Your task to perform on an android device: Look up the best rated 5.1 home theater speakers on Walmart. Image 0: 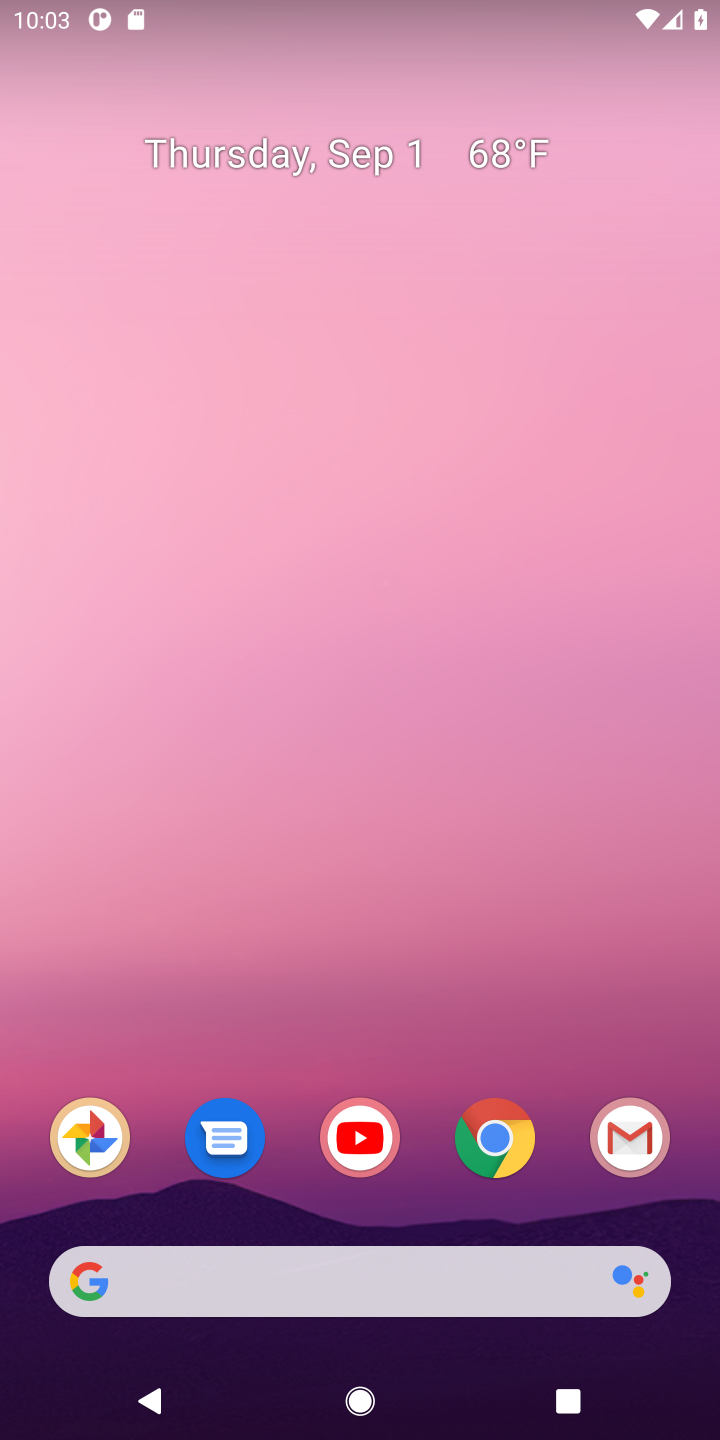
Step 0: click (354, 1260)
Your task to perform on an android device: Look up the best rated 5.1 home theater speakers on Walmart. Image 1: 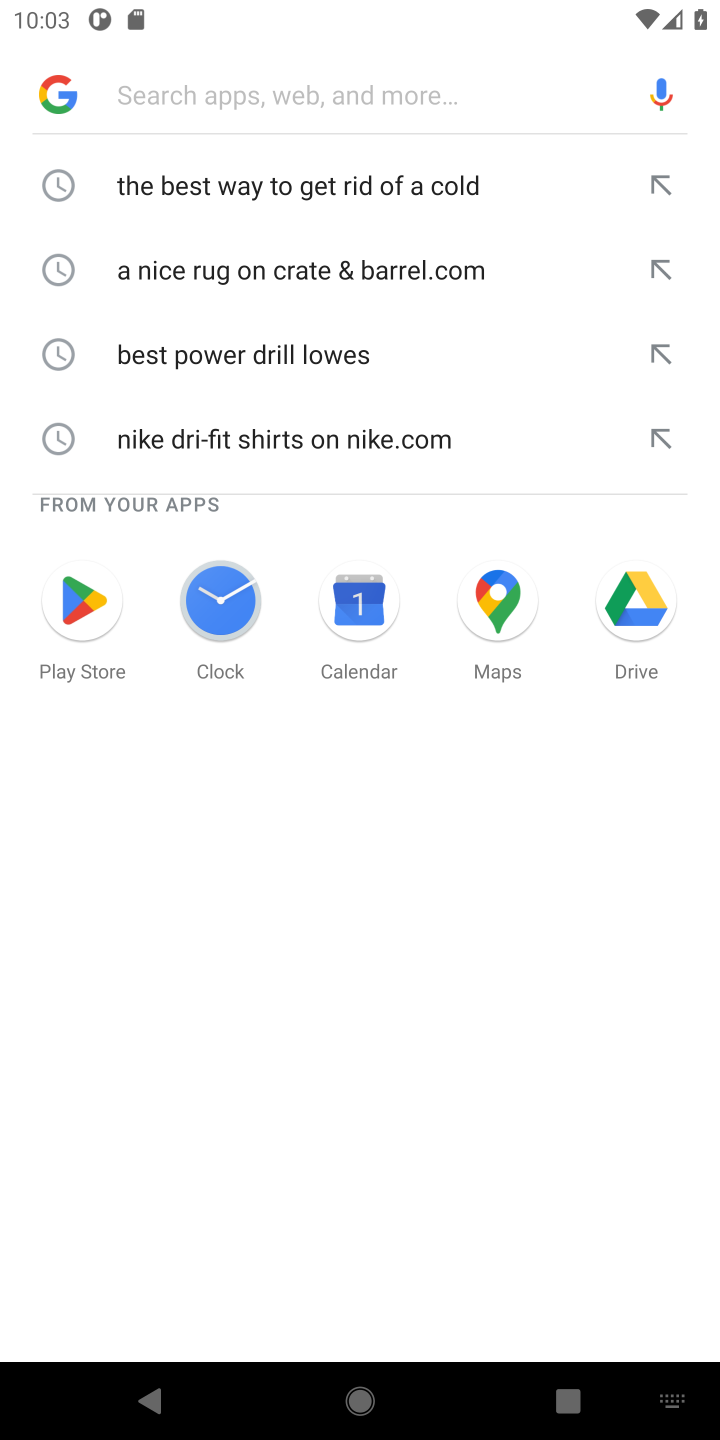
Step 1: type "the best rated 5.1 home theater speakers on Walmart"
Your task to perform on an android device: Look up the best rated 5.1 home theater speakers on Walmart. Image 2: 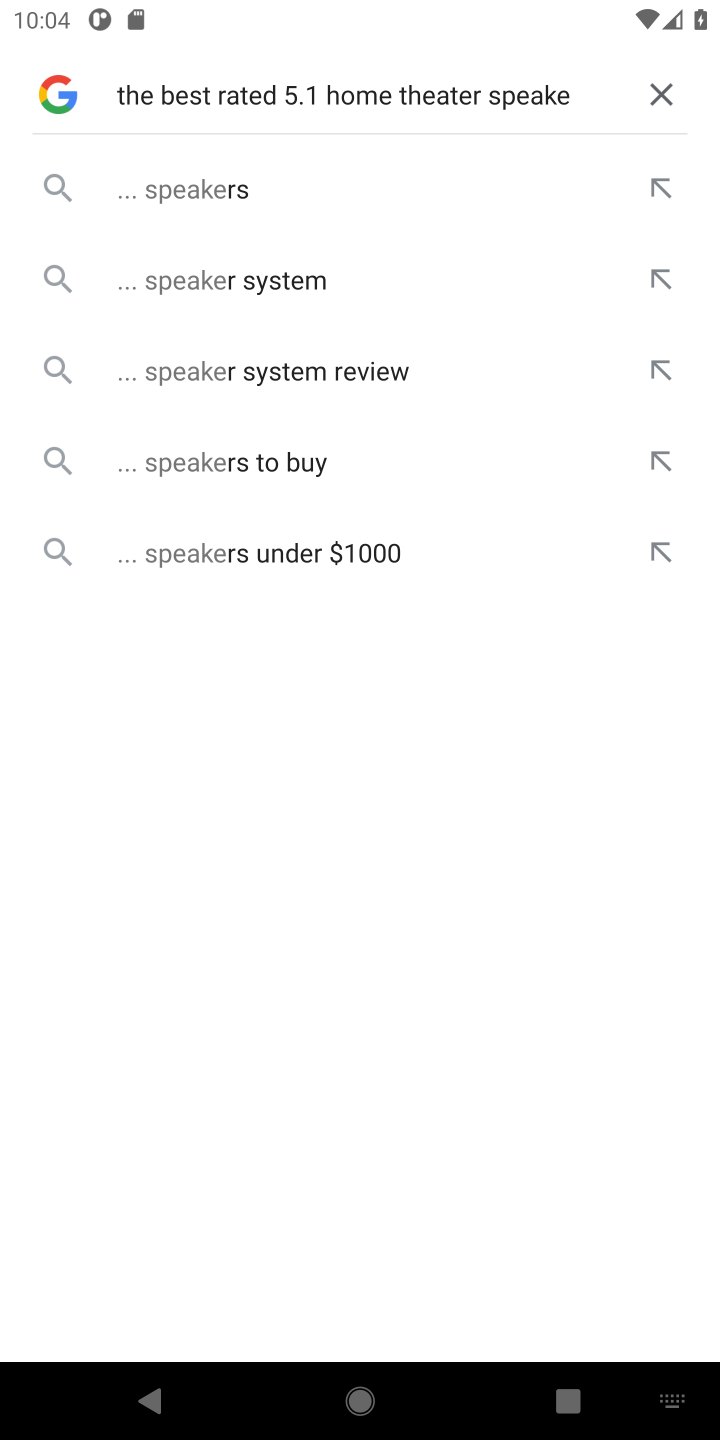
Step 2: click (190, 188)
Your task to perform on an android device: Look up the best rated 5.1 home theater speakers on Walmart. Image 3: 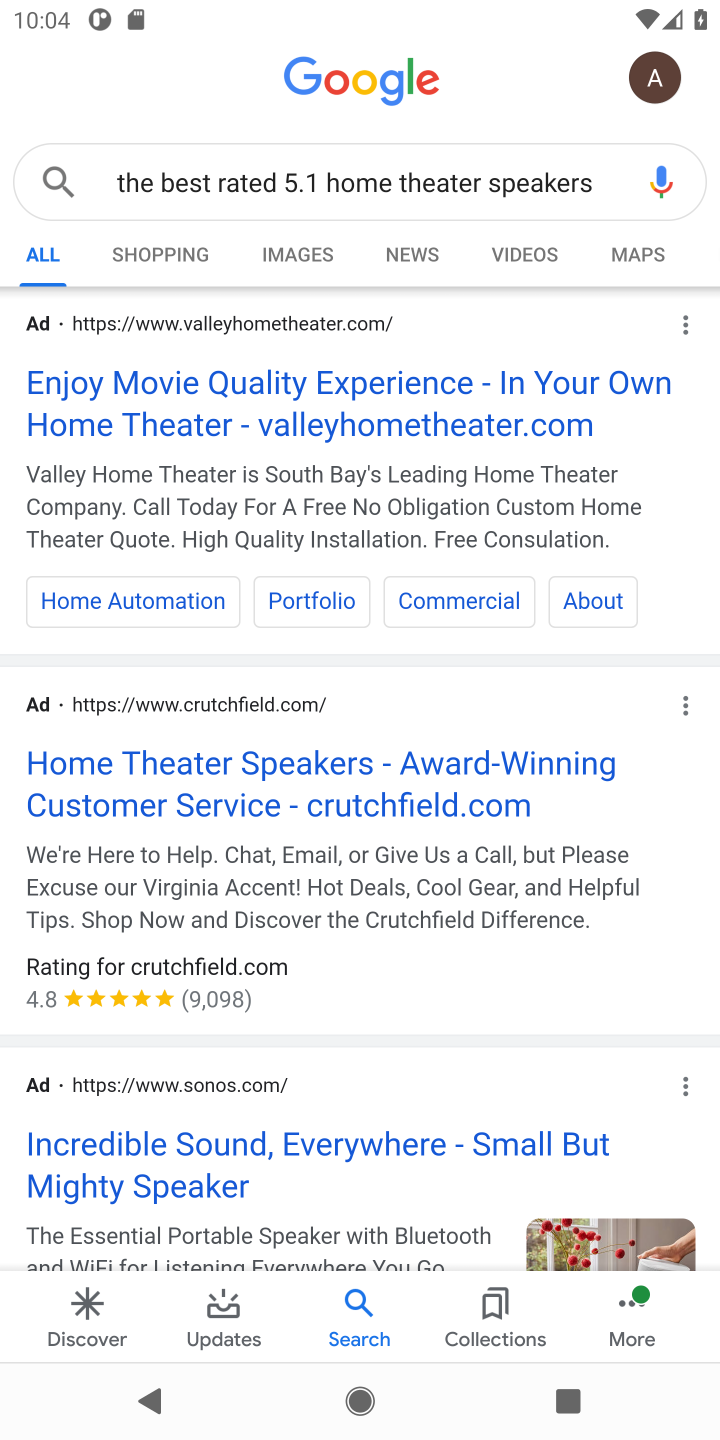
Step 3: click (168, 384)
Your task to perform on an android device: Look up the best rated 5.1 home theater speakers on Walmart. Image 4: 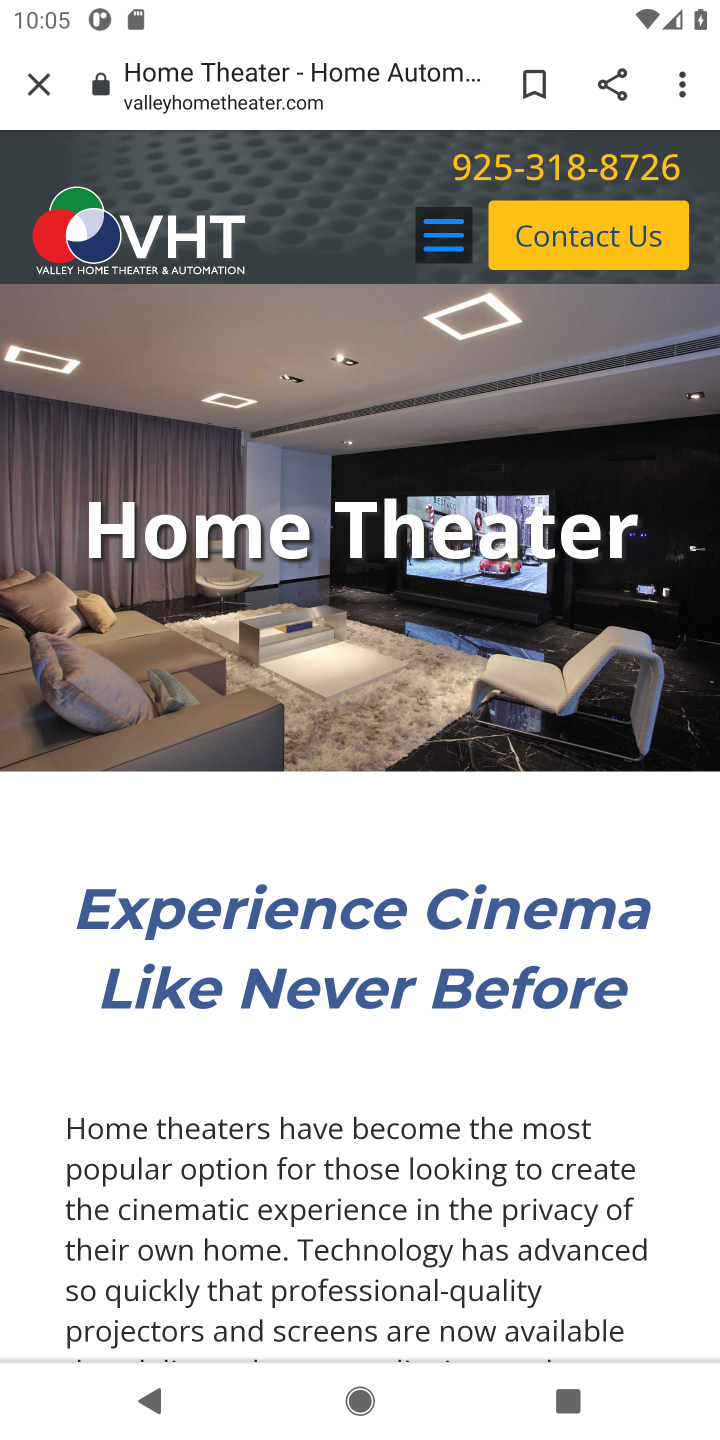
Step 4: task complete